Your task to perform on an android device: Open calendar and show me the fourth week of next month Image 0: 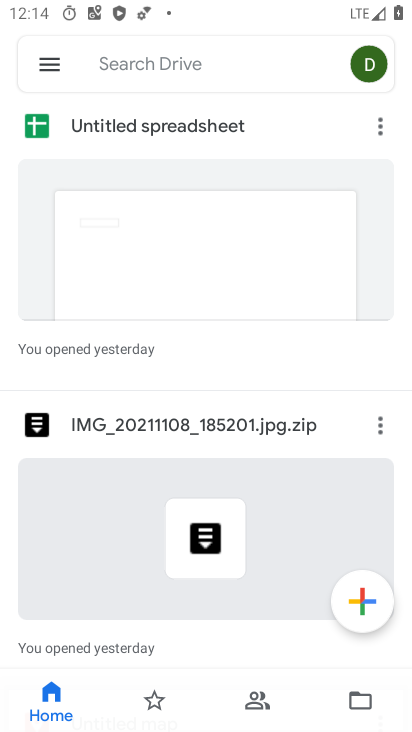
Step 0: press home button
Your task to perform on an android device: Open calendar and show me the fourth week of next month Image 1: 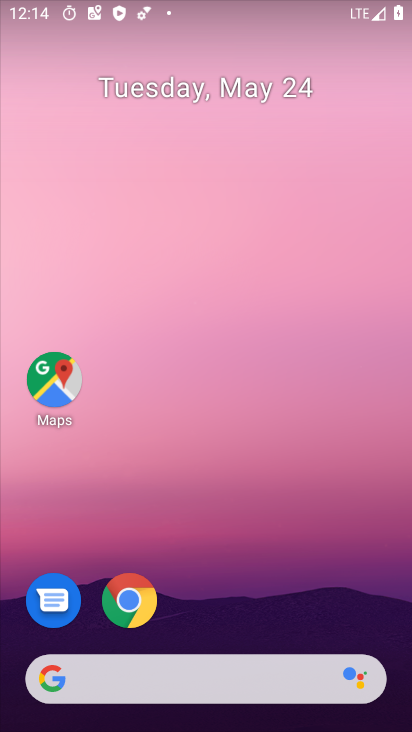
Step 1: drag from (254, 604) to (241, 73)
Your task to perform on an android device: Open calendar and show me the fourth week of next month Image 2: 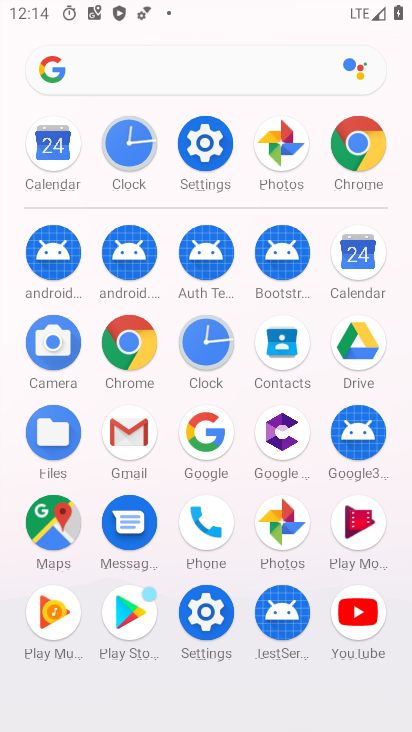
Step 2: click (364, 259)
Your task to perform on an android device: Open calendar and show me the fourth week of next month Image 3: 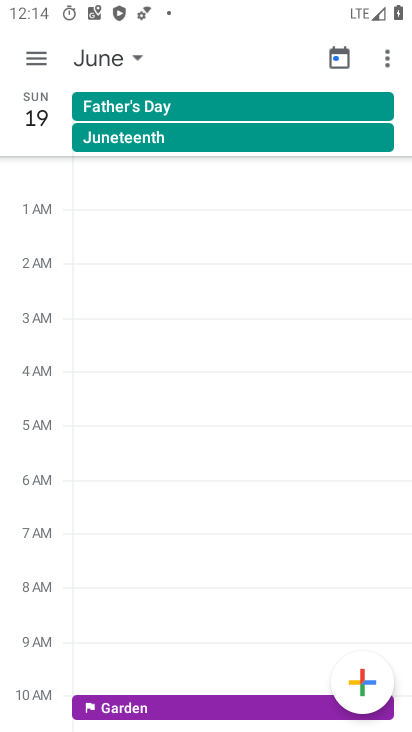
Step 3: click (107, 71)
Your task to perform on an android device: Open calendar and show me the fourth week of next month Image 4: 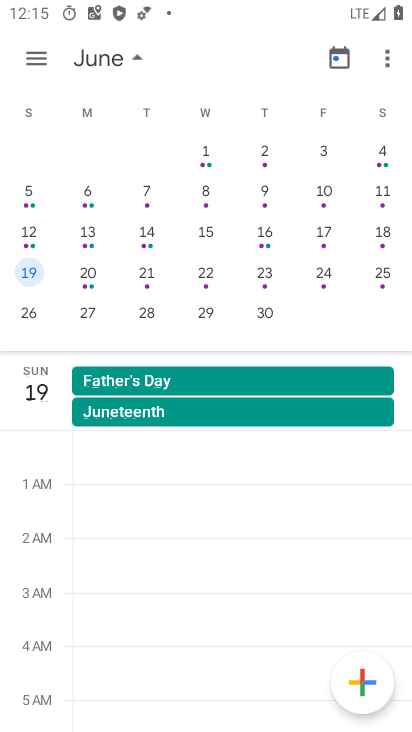
Step 4: click (24, 316)
Your task to perform on an android device: Open calendar and show me the fourth week of next month Image 5: 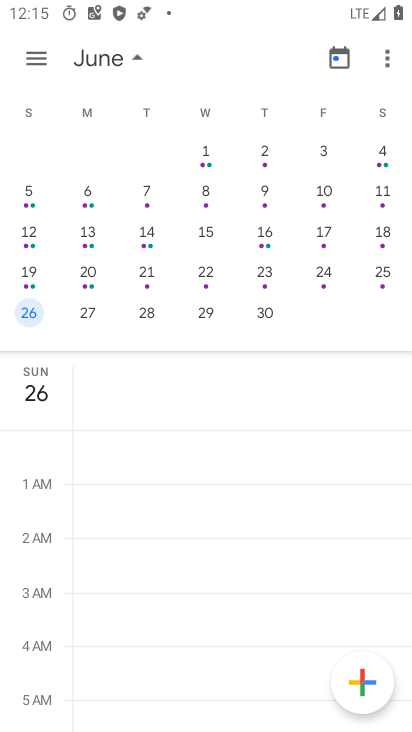
Step 5: click (30, 57)
Your task to perform on an android device: Open calendar and show me the fourth week of next month Image 6: 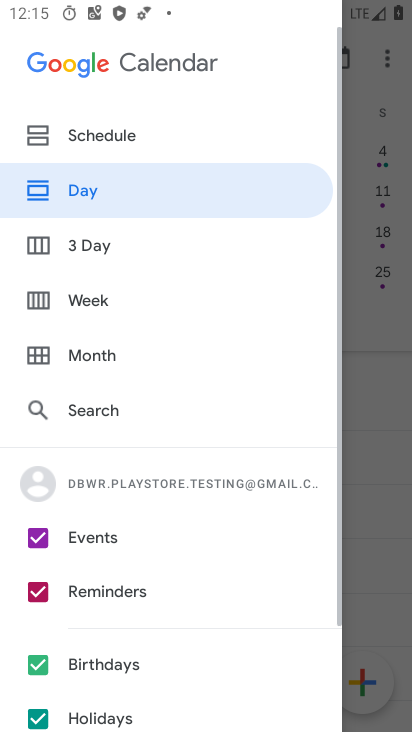
Step 6: click (98, 292)
Your task to perform on an android device: Open calendar and show me the fourth week of next month Image 7: 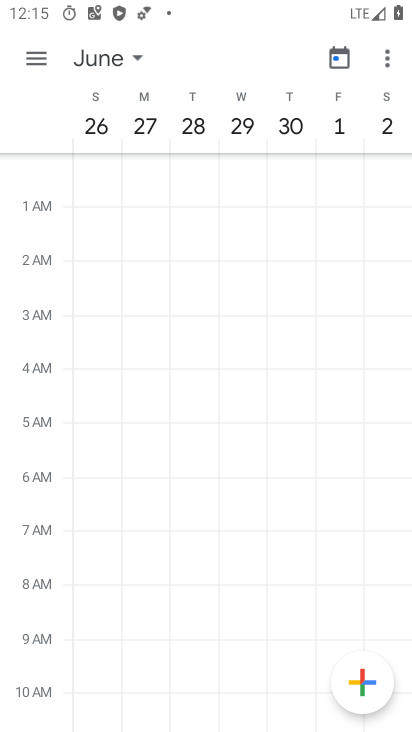
Step 7: task complete